Your task to perform on an android device: Search for vegetarian restaurants on Maps Image 0: 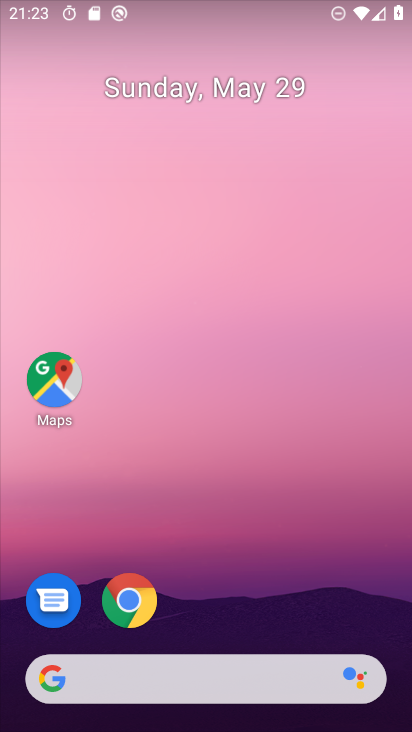
Step 0: drag from (332, 570) to (334, 159)
Your task to perform on an android device: Search for vegetarian restaurants on Maps Image 1: 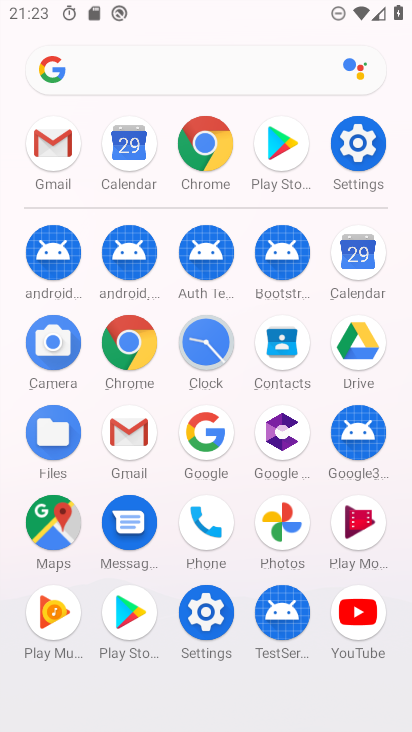
Step 1: click (35, 534)
Your task to perform on an android device: Search for vegetarian restaurants on Maps Image 2: 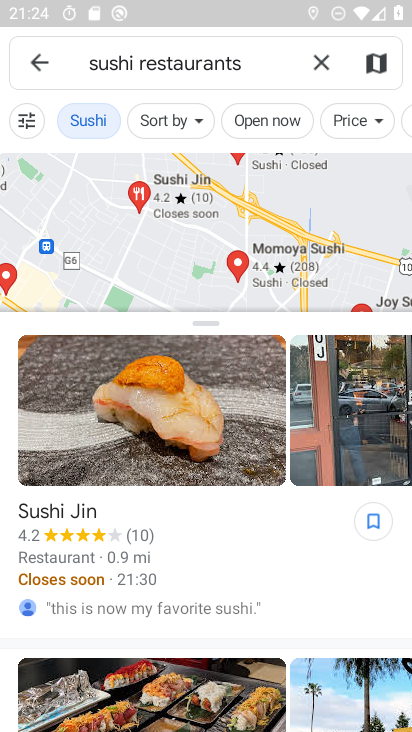
Step 2: click (310, 72)
Your task to perform on an android device: Search for vegetarian restaurants on Maps Image 3: 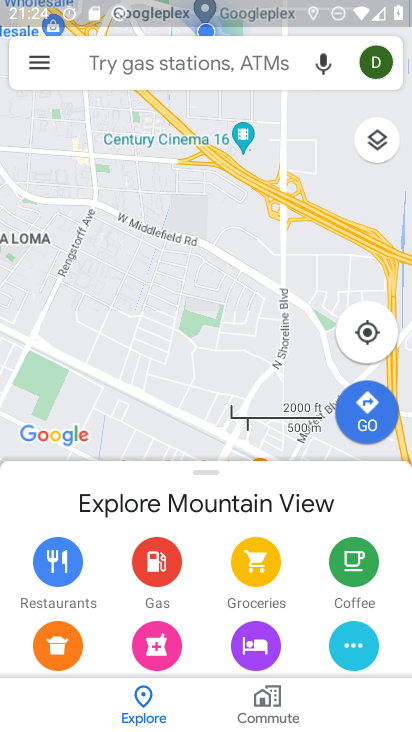
Step 3: click (180, 68)
Your task to perform on an android device: Search for vegetarian restaurants on Maps Image 4: 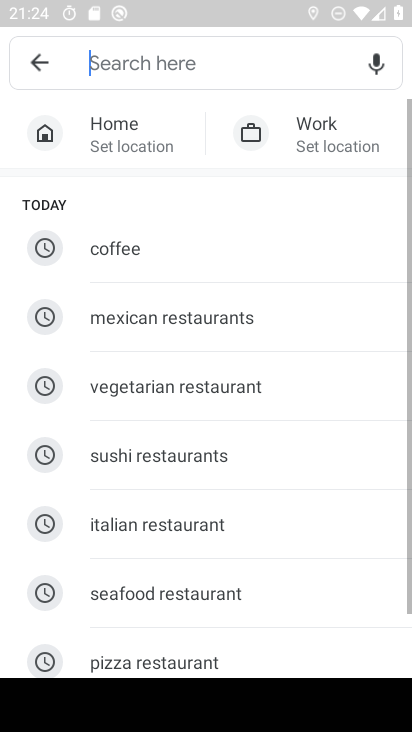
Step 4: click (137, 69)
Your task to perform on an android device: Search for vegetarian restaurants on Maps Image 5: 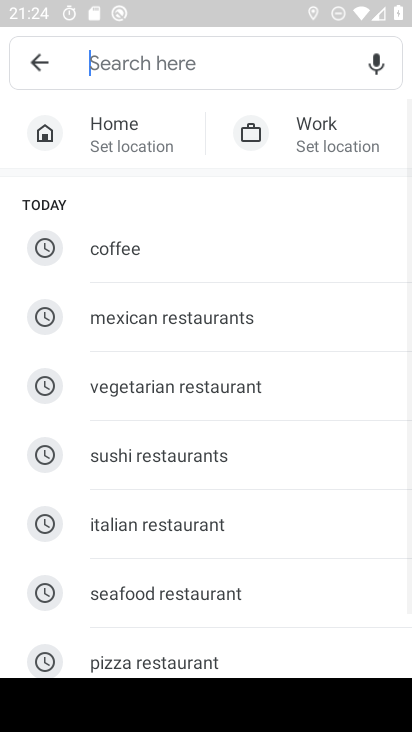
Step 5: click (163, 389)
Your task to perform on an android device: Search for vegetarian restaurants on Maps Image 6: 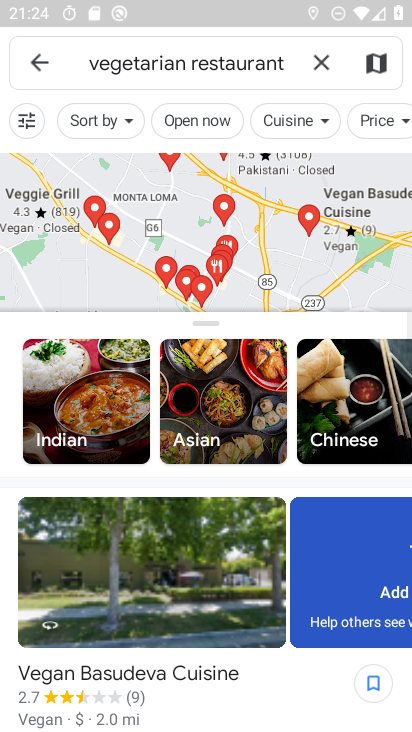
Step 6: task complete